Your task to perform on an android device: turn notification dots off Image 0: 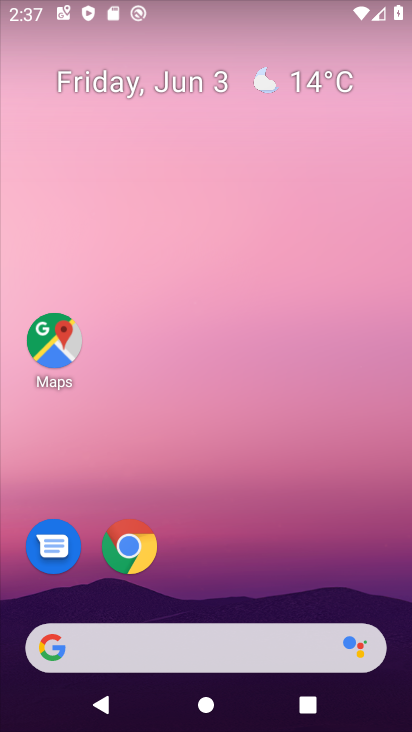
Step 0: drag from (372, 544) to (399, 111)
Your task to perform on an android device: turn notification dots off Image 1: 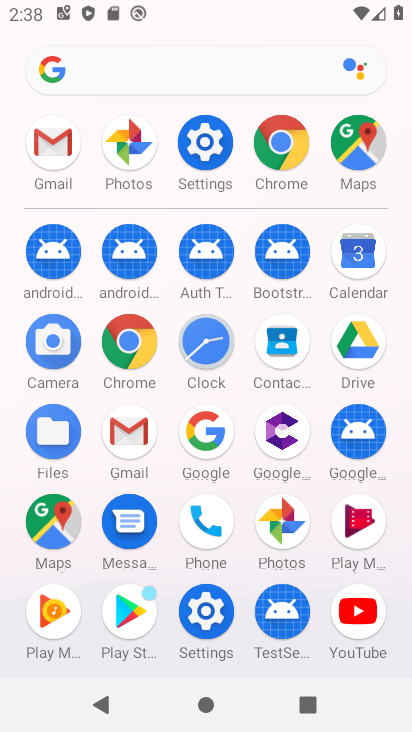
Step 1: click (224, 133)
Your task to perform on an android device: turn notification dots off Image 2: 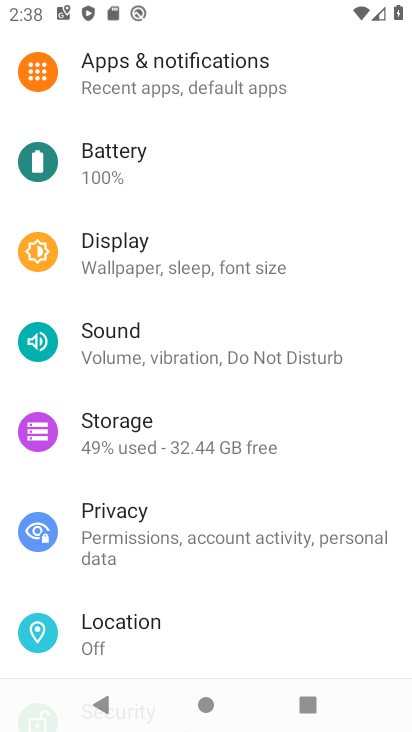
Step 2: drag from (219, 173) to (154, 642)
Your task to perform on an android device: turn notification dots off Image 3: 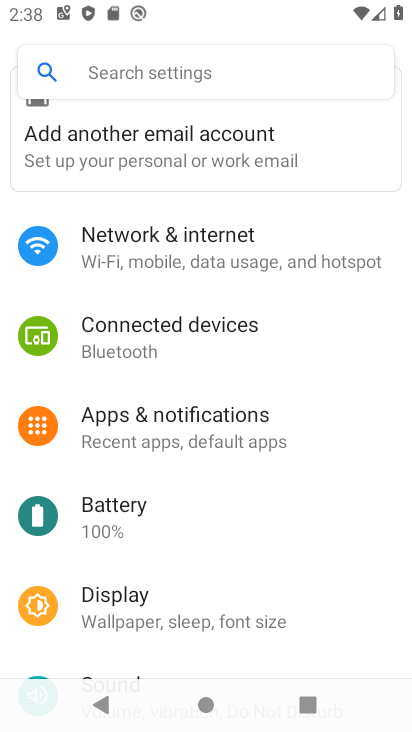
Step 3: click (221, 412)
Your task to perform on an android device: turn notification dots off Image 4: 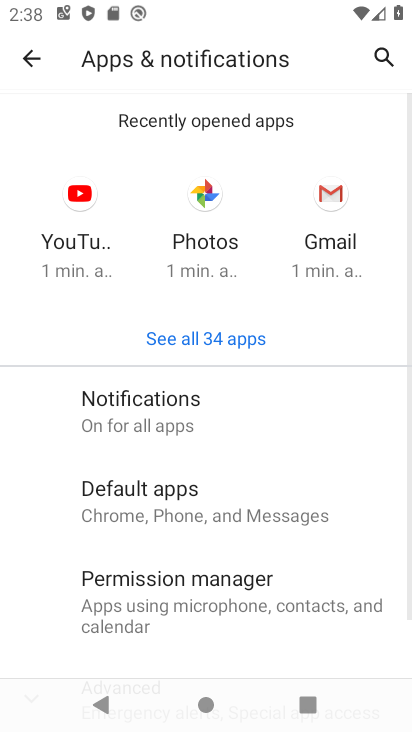
Step 4: click (152, 429)
Your task to perform on an android device: turn notification dots off Image 5: 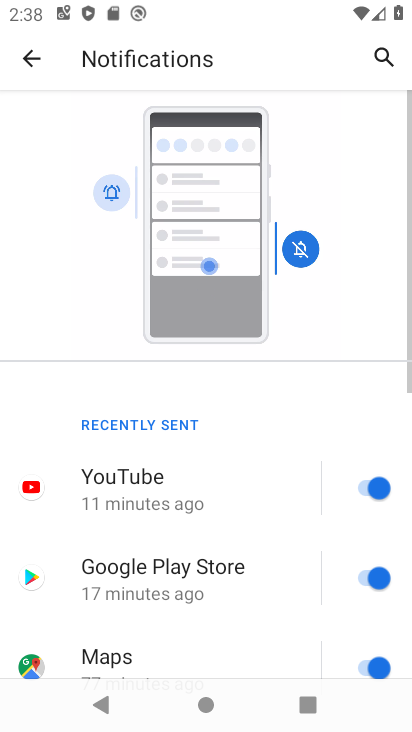
Step 5: drag from (185, 561) to (315, 65)
Your task to perform on an android device: turn notification dots off Image 6: 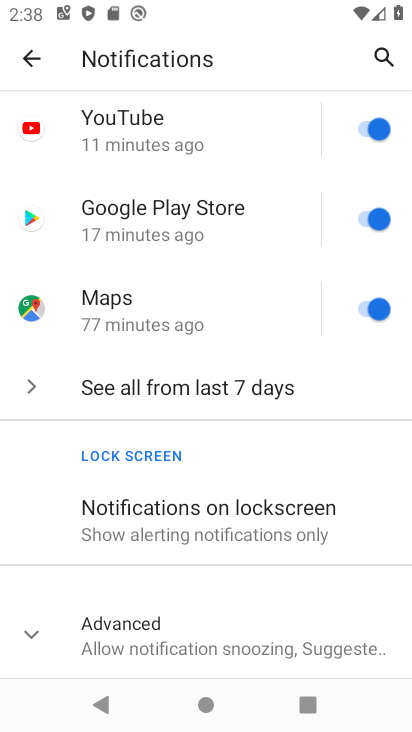
Step 6: drag from (192, 576) to (292, 154)
Your task to perform on an android device: turn notification dots off Image 7: 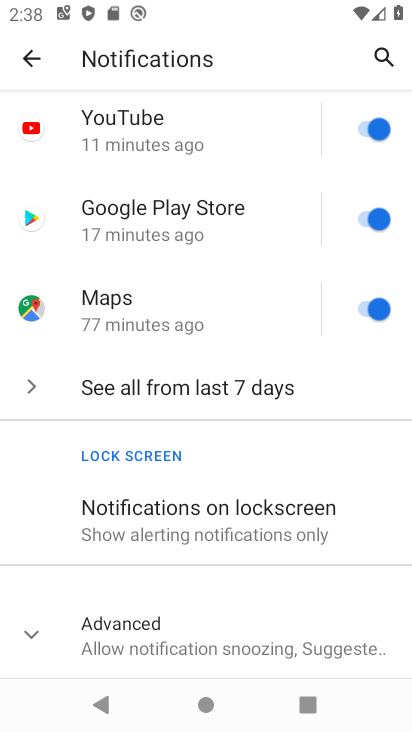
Step 7: click (151, 638)
Your task to perform on an android device: turn notification dots off Image 8: 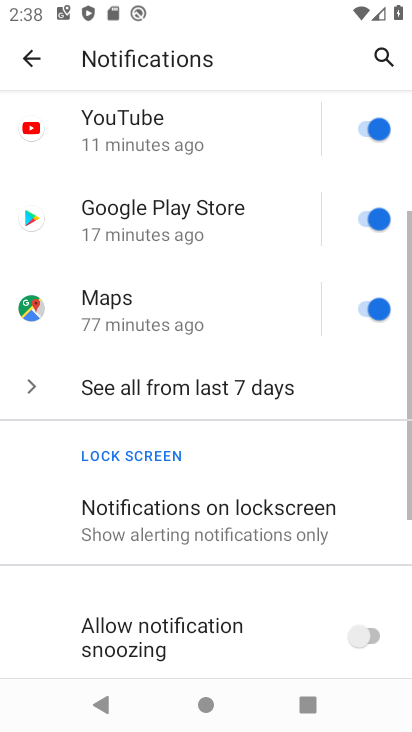
Step 8: drag from (154, 629) to (286, 119)
Your task to perform on an android device: turn notification dots off Image 9: 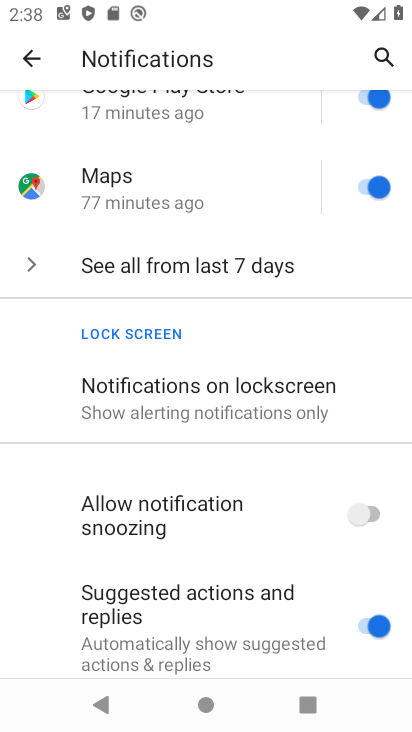
Step 9: drag from (233, 655) to (336, 214)
Your task to perform on an android device: turn notification dots off Image 10: 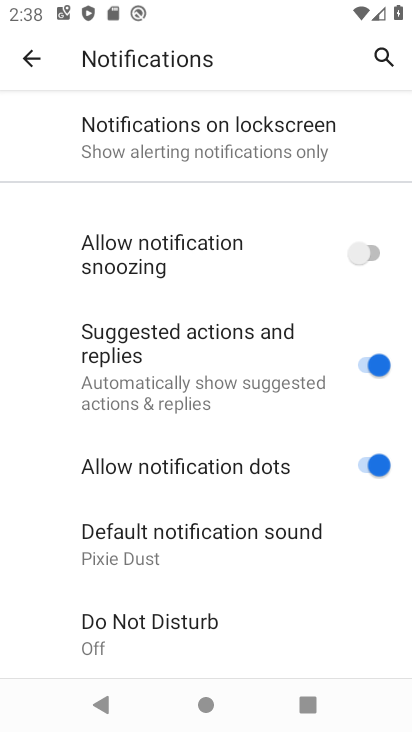
Step 10: click (374, 454)
Your task to perform on an android device: turn notification dots off Image 11: 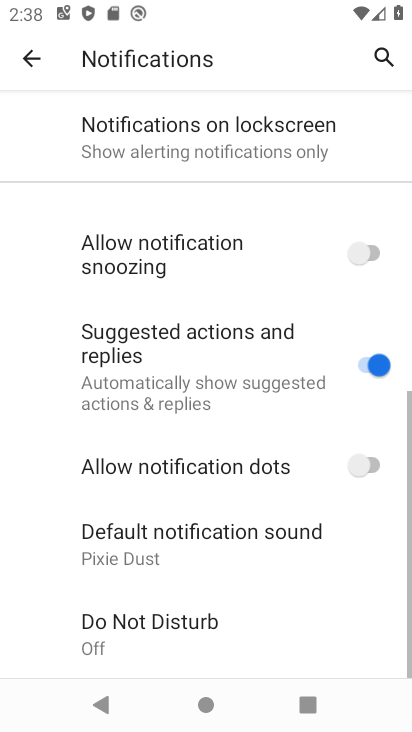
Step 11: task complete